Your task to perform on an android device: Open Amazon Image 0: 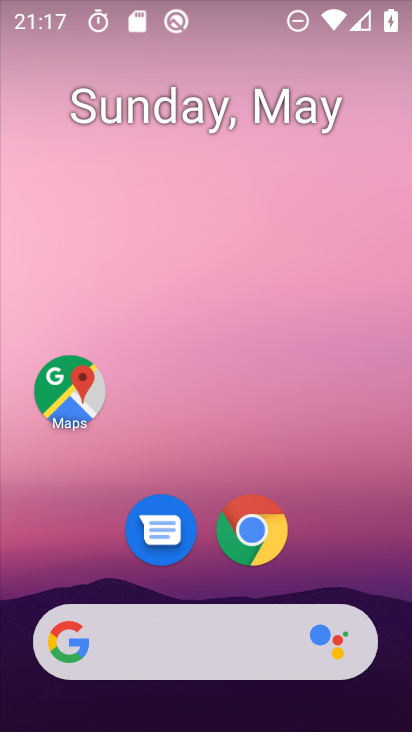
Step 0: drag from (225, 657) to (177, 0)
Your task to perform on an android device: Open Amazon Image 1: 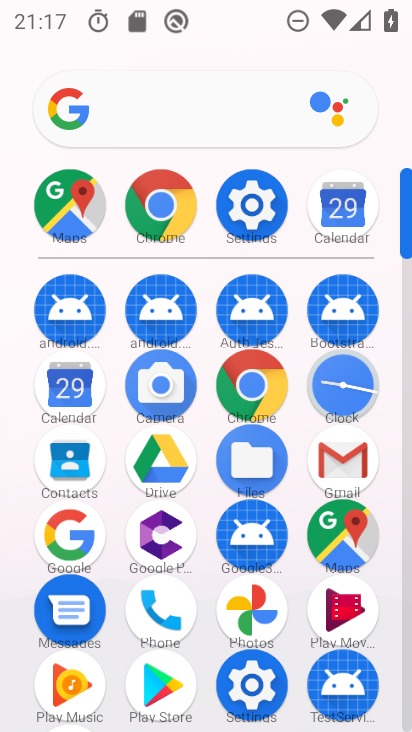
Step 1: click (155, 212)
Your task to perform on an android device: Open Amazon Image 2: 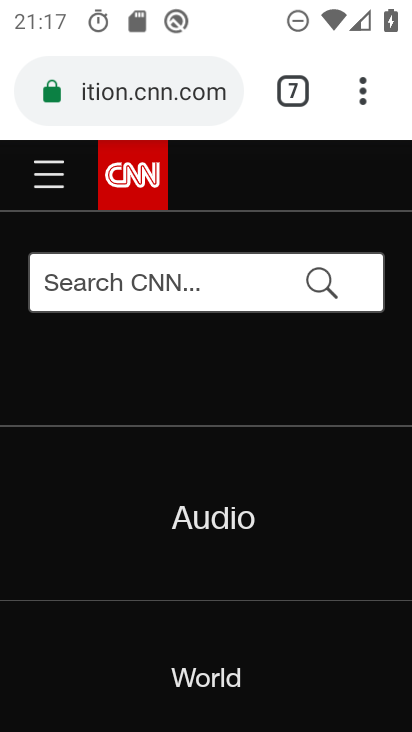
Step 2: click (357, 95)
Your task to perform on an android device: Open Amazon Image 3: 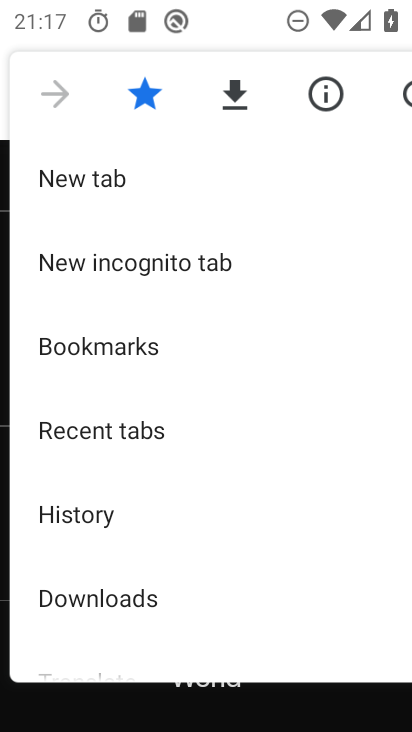
Step 3: click (126, 186)
Your task to perform on an android device: Open Amazon Image 4: 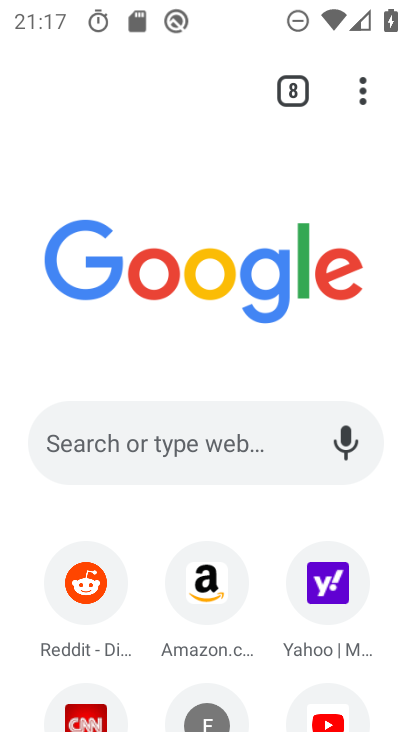
Step 4: click (190, 575)
Your task to perform on an android device: Open Amazon Image 5: 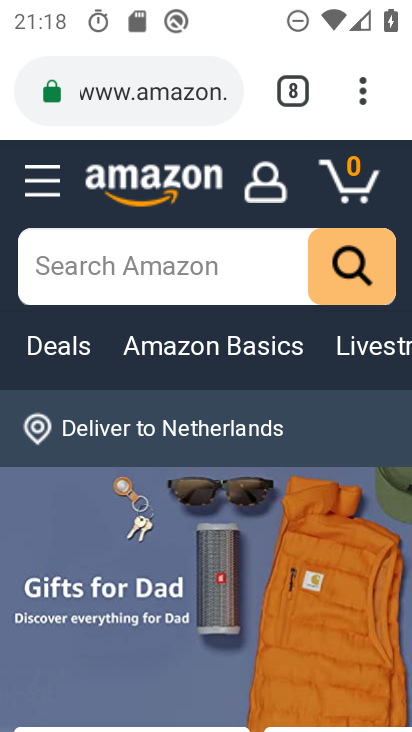
Step 5: task complete